Your task to perform on an android device: Open Amazon Image 0: 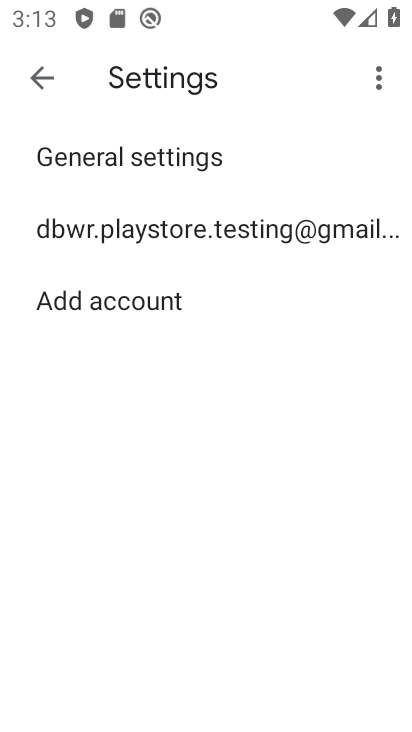
Step 0: press home button
Your task to perform on an android device: Open Amazon Image 1: 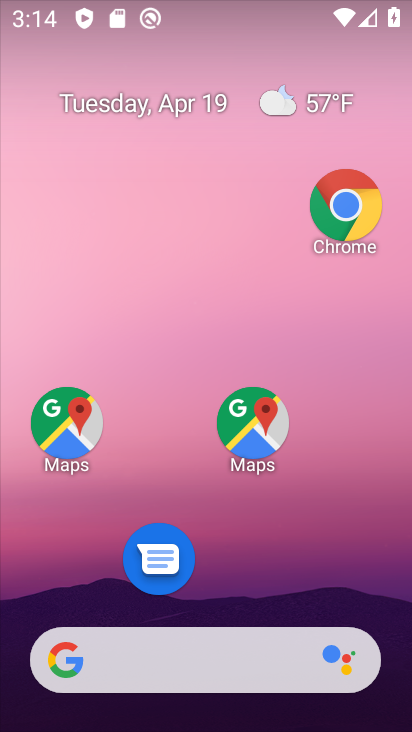
Step 1: drag from (248, 433) to (236, 728)
Your task to perform on an android device: Open Amazon Image 2: 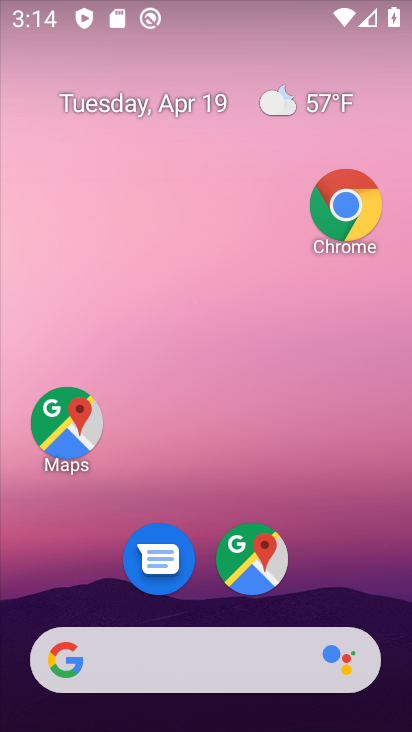
Step 2: click (349, 204)
Your task to perform on an android device: Open Amazon Image 3: 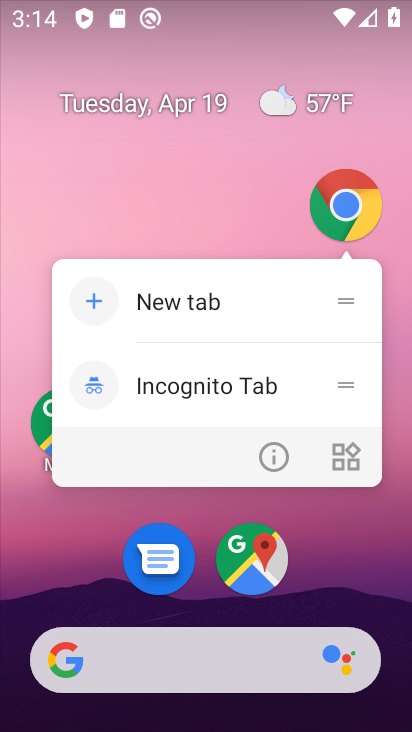
Step 3: click (279, 471)
Your task to perform on an android device: Open Amazon Image 4: 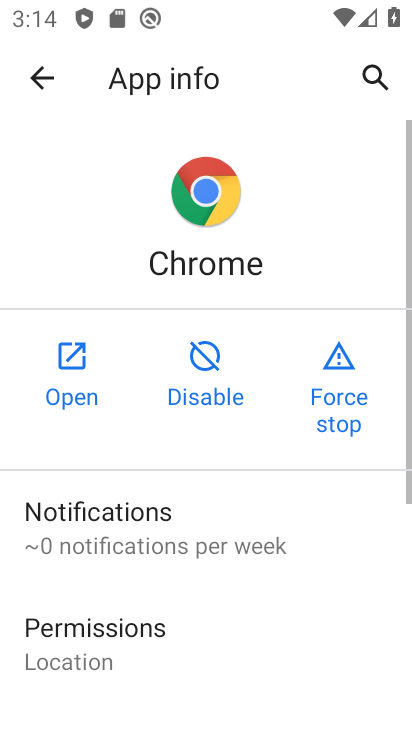
Step 4: click (85, 359)
Your task to perform on an android device: Open Amazon Image 5: 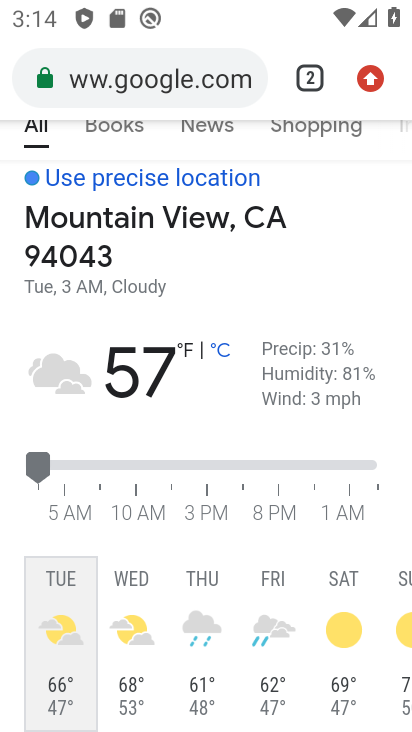
Step 5: click (256, 264)
Your task to perform on an android device: Open Amazon Image 6: 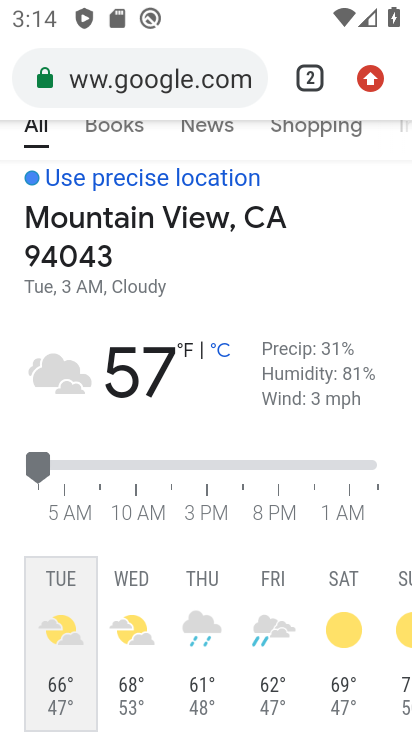
Step 6: click (192, 87)
Your task to perform on an android device: Open Amazon Image 7: 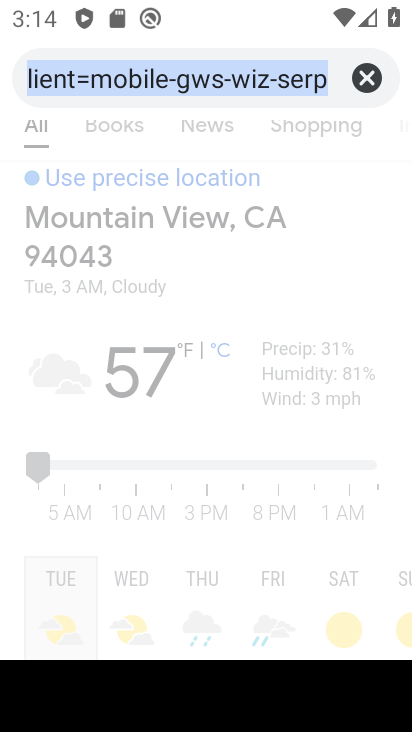
Step 7: type "amazon"
Your task to perform on an android device: Open Amazon Image 8: 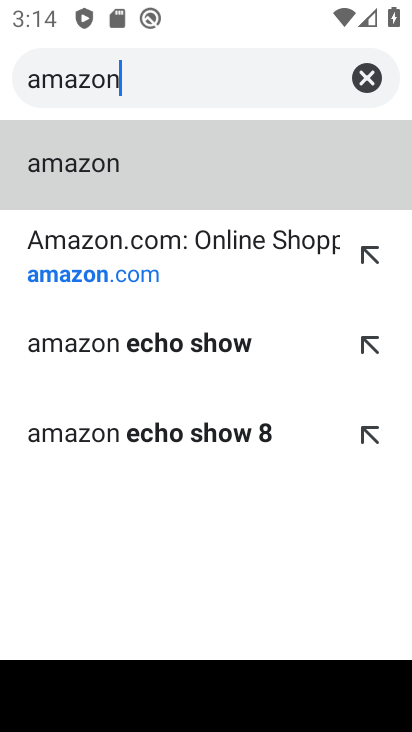
Step 8: click (265, 164)
Your task to perform on an android device: Open Amazon Image 9: 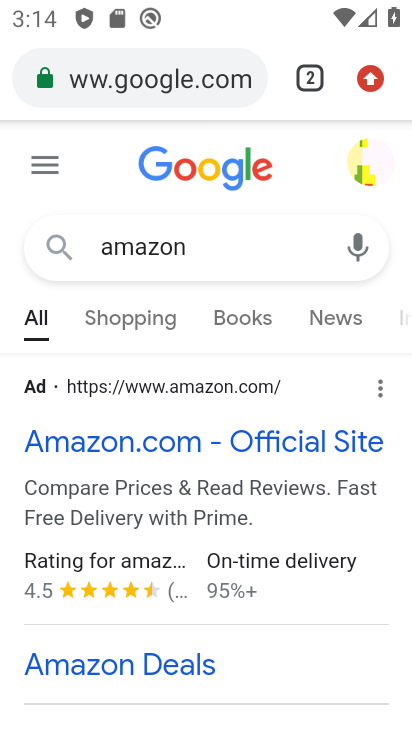
Step 9: task complete